Your task to perform on an android device: turn off notifications settings in the gmail app Image 0: 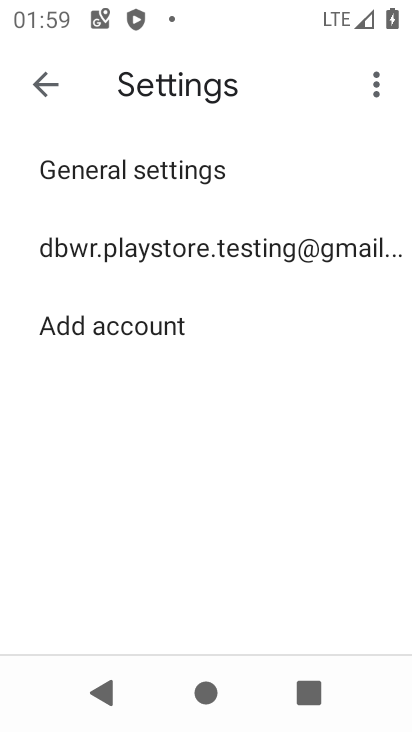
Step 0: press home button
Your task to perform on an android device: turn off notifications settings in the gmail app Image 1: 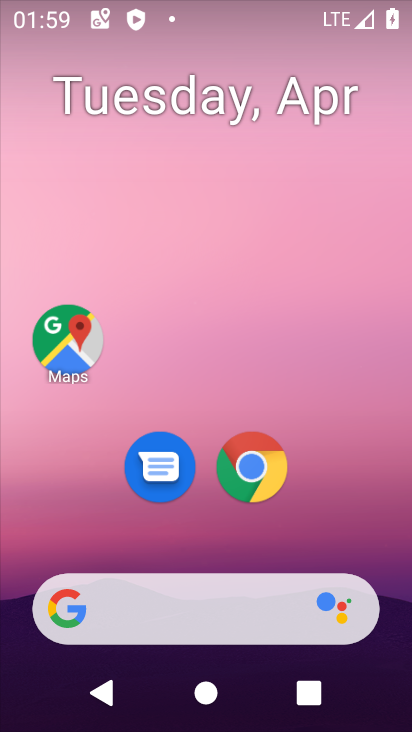
Step 1: drag from (385, 529) to (372, 95)
Your task to perform on an android device: turn off notifications settings in the gmail app Image 2: 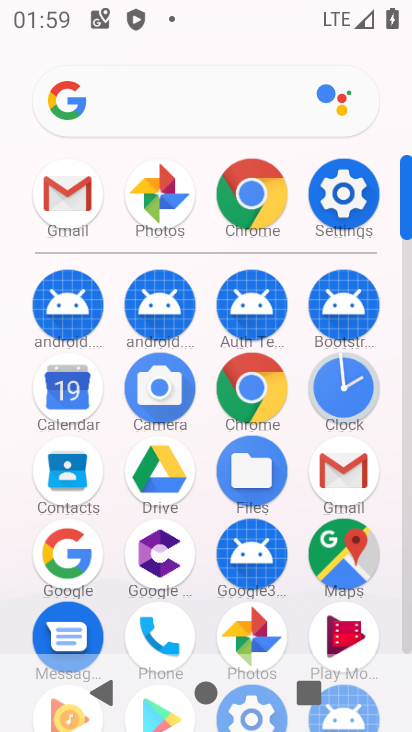
Step 2: click (347, 475)
Your task to perform on an android device: turn off notifications settings in the gmail app Image 3: 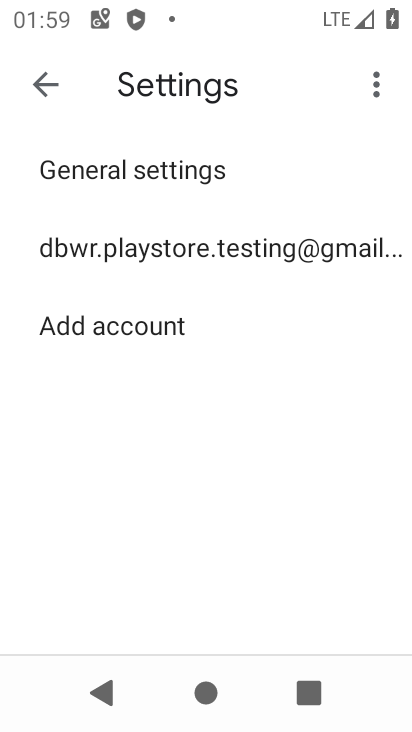
Step 3: click (244, 248)
Your task to perform on an android device: turn off notifications settings in the gmail app Image 4: 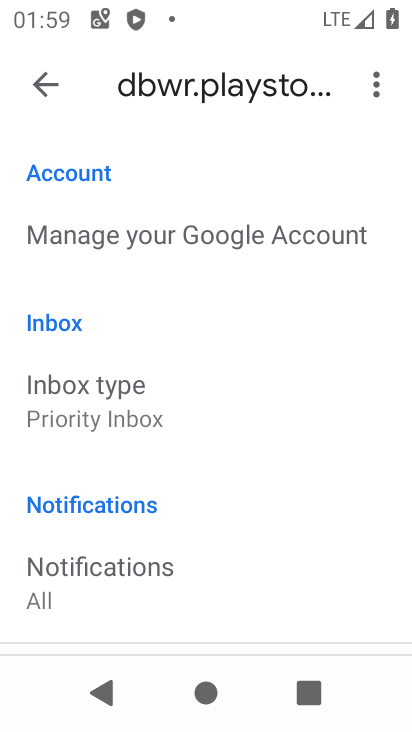
Step 4: drag from (313, 536) to (322, 351)
Your task to perform on an android device: turn off notifications settings in the gmail app Image 5: 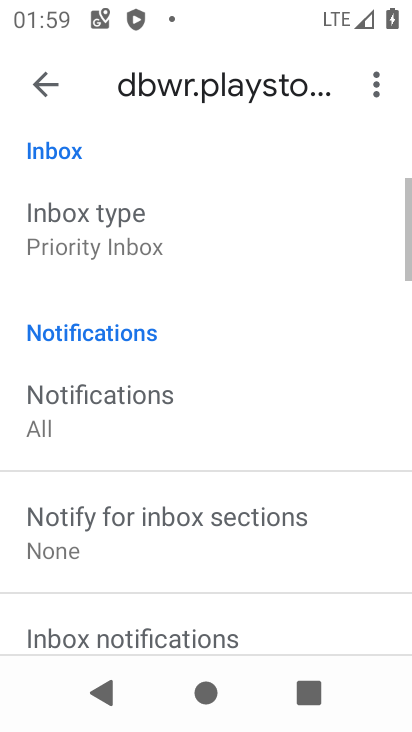
Step 5: drag from (338, 530) to (332, 312)
Your task to perform on an android device: turn off notifications settings in the gmail app Image 6: 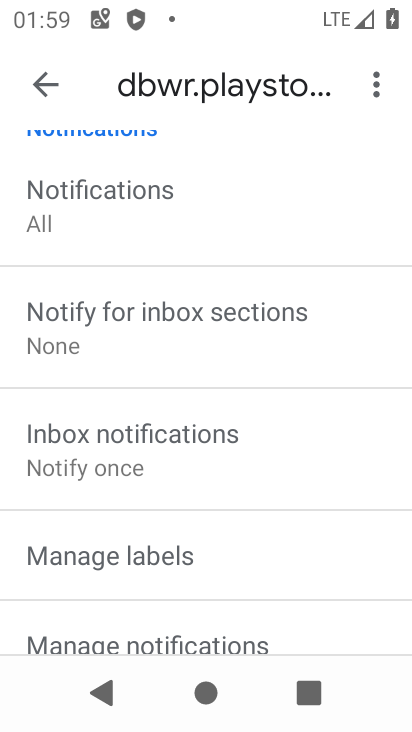
Step 6: drag from (339, 589) to (338, 349)
Your task to perform on an android device: turn off notifications settings in the gmail app Image 7: 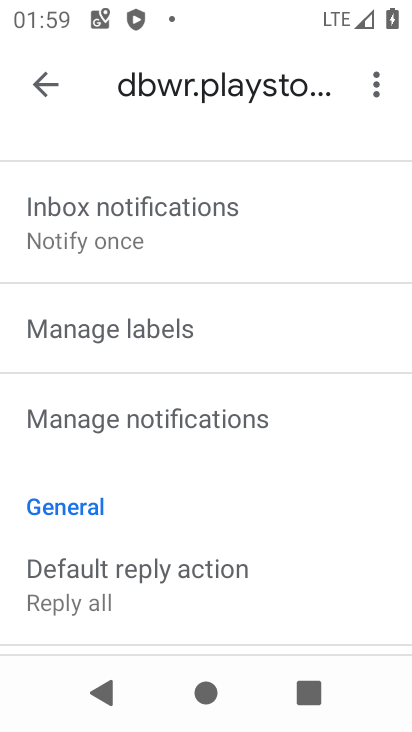
Step 7: drag from (333, 550) to (355, 262)
Your task to perform on an android device: turn off notifications settings in the gmail app Image 8: 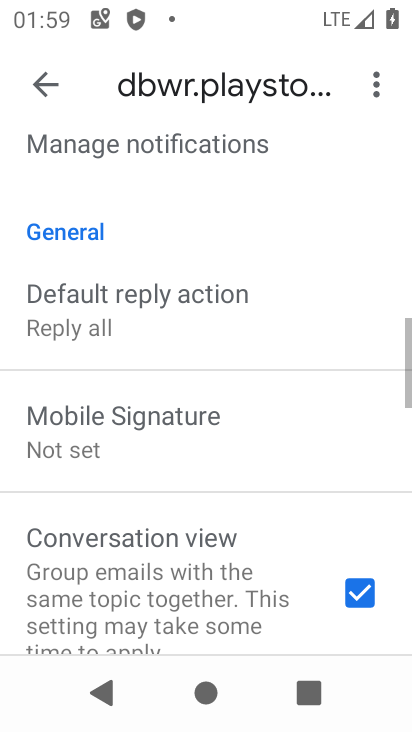
Step 8: drag from (330, 557) to (336, 275)
Your task to perform on an android device: turn off notifications settings in the gmail app Image 9: 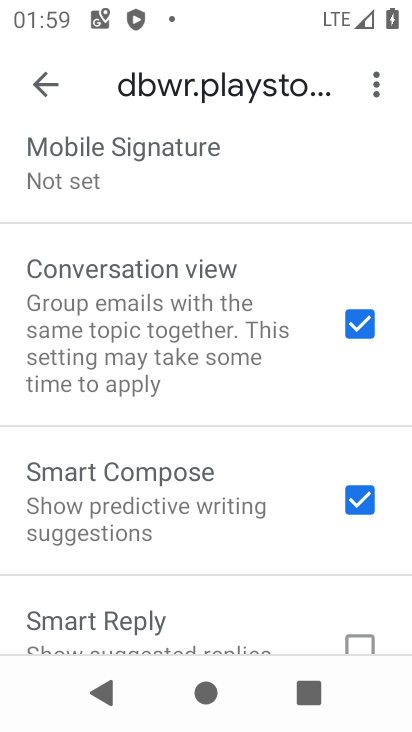
Step 9: drag from (286, 532) to (293, 344)
Your task to perform on an android device: turn off notifications settings in the gmail app Image 10: 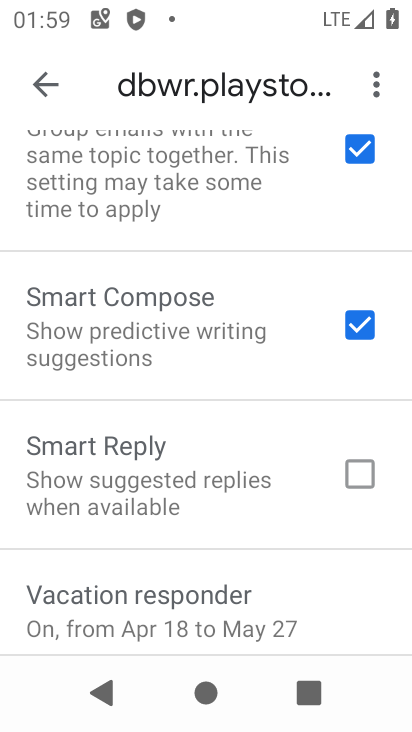
Step 10: drag from (275, 277) to (294, 519)
Your task to perform on an android device: turn off notifications settings in the gmail app Image 11: 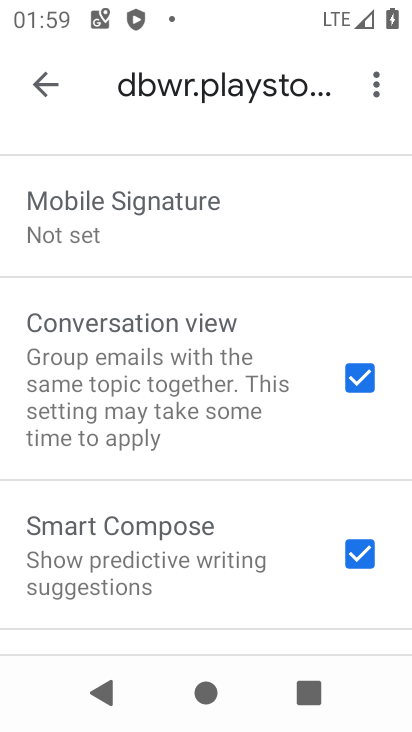
Step 11: drag from (293, 253) to (280, 511)
Your task to perform on an android device: turn off notifications settings in the gmail app Image 12: 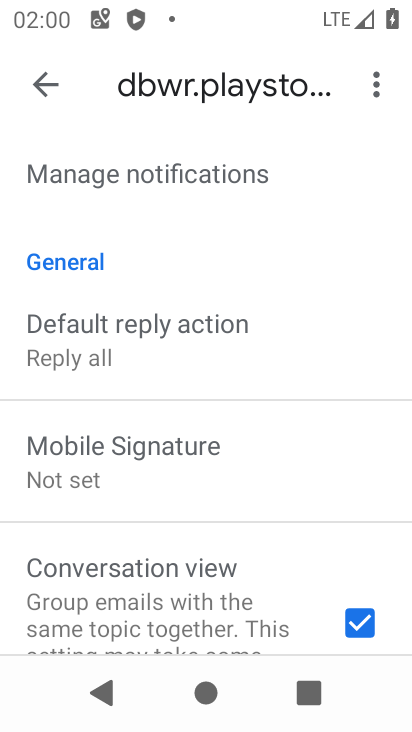
Step 12: click (223, 176)
Your task to perform on an android device: turn off notifications settings in the gmail app Image 13: 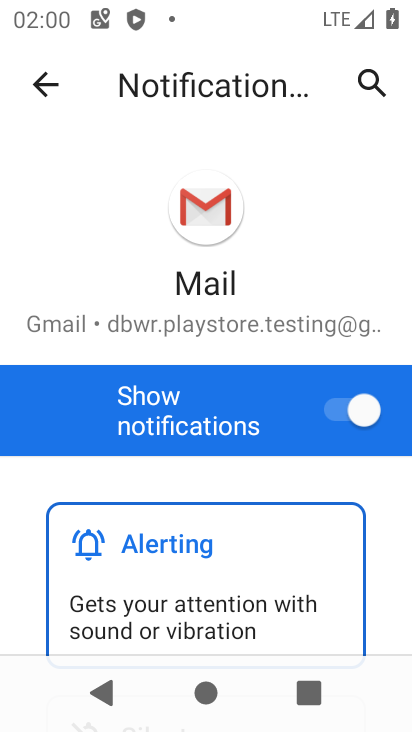
Step 13: click (342, 416)
Your task to perform on an android device: turn off notifications settings in the gmail app Image 14: 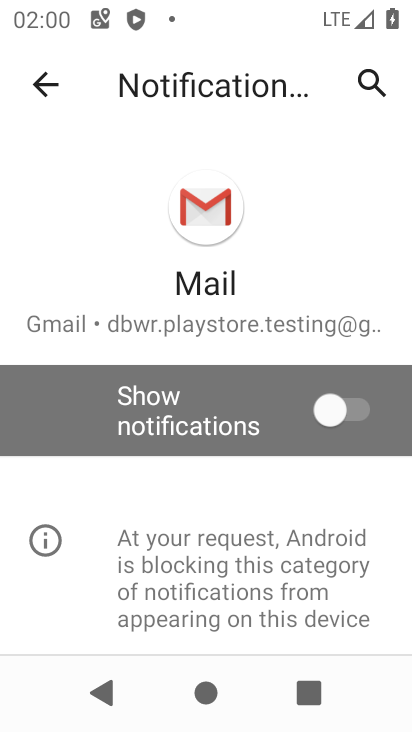
Step 14: task complete